Your task to perform on an android device: Open internet settings Image 0: 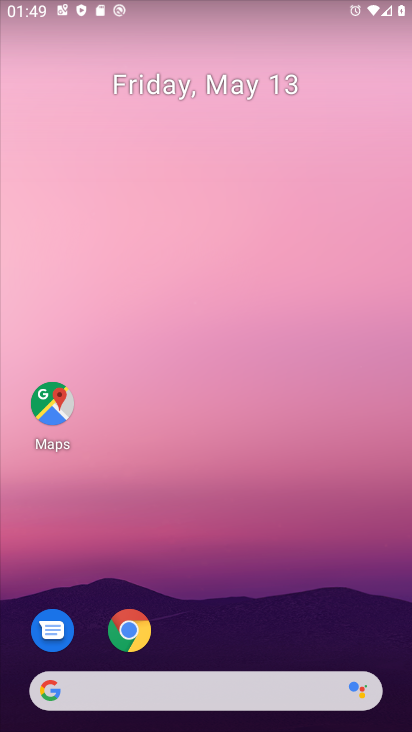
Step 0: drag from (262, 685) to (240, 156)
Your task to perform on an android device: Open internet settings Image 1: 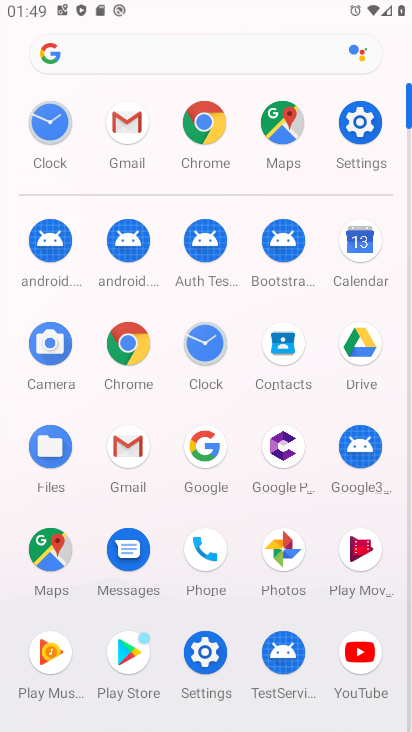
Step 1: click (204, 656)
Your task to perform on an android device: Open internet settings Image 2: 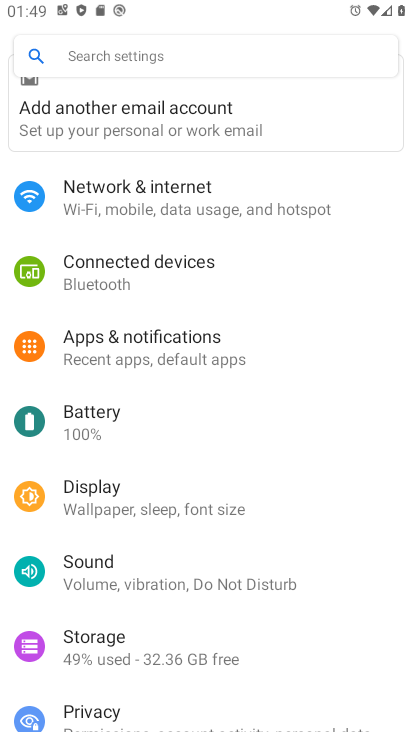
Step 2: click (152, 202)
Your task to perform on an android device: Open internet settings Image 3: 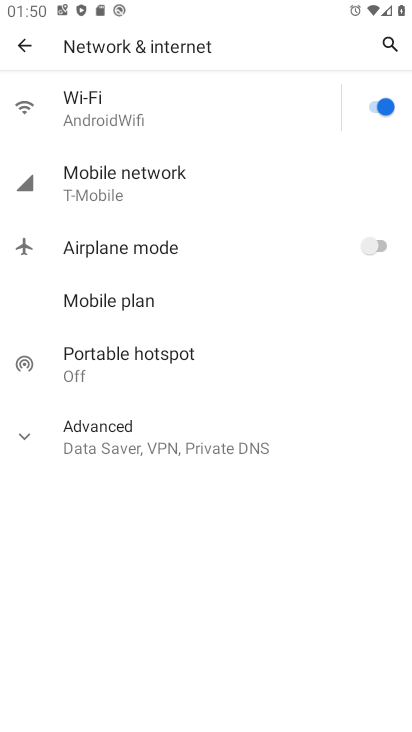
Step 3: task complete